Your task to perform on an android device: change notification settings in the gmail app Image 0: 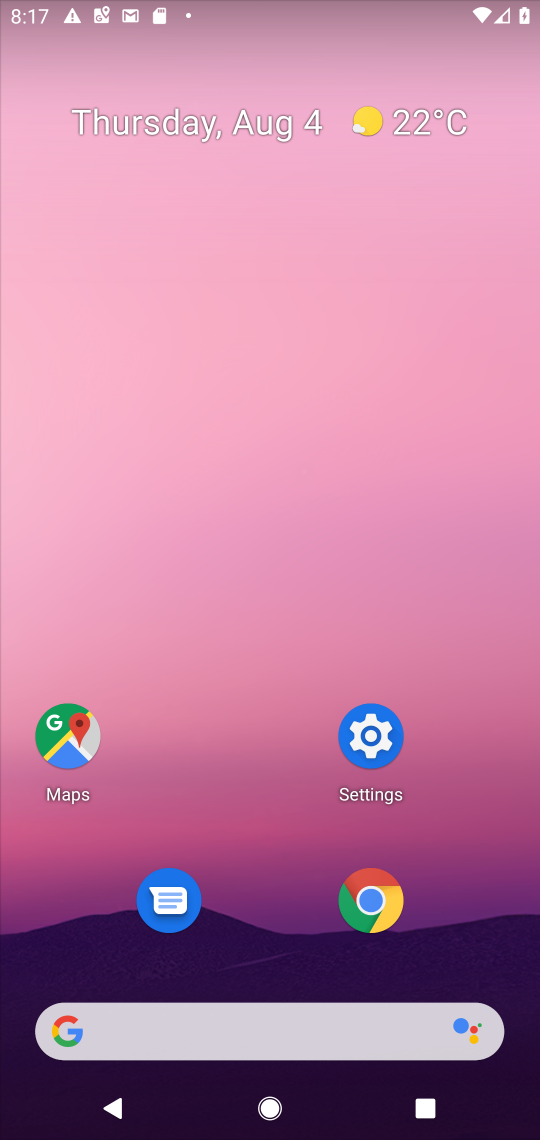
Step 0: press home button
Your task to perform on an android device: change notification settings in the gmail app Image 1: 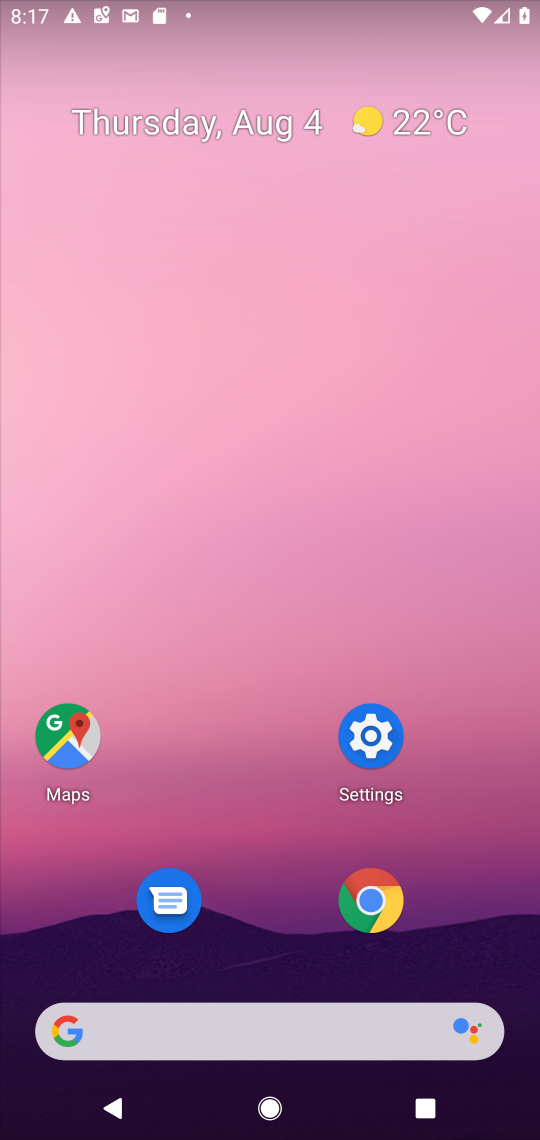
Step 1: drag from (239, 1050) to (386, 306)
Your task to perform on an android device: change notification settings in the gmail app Image 2: 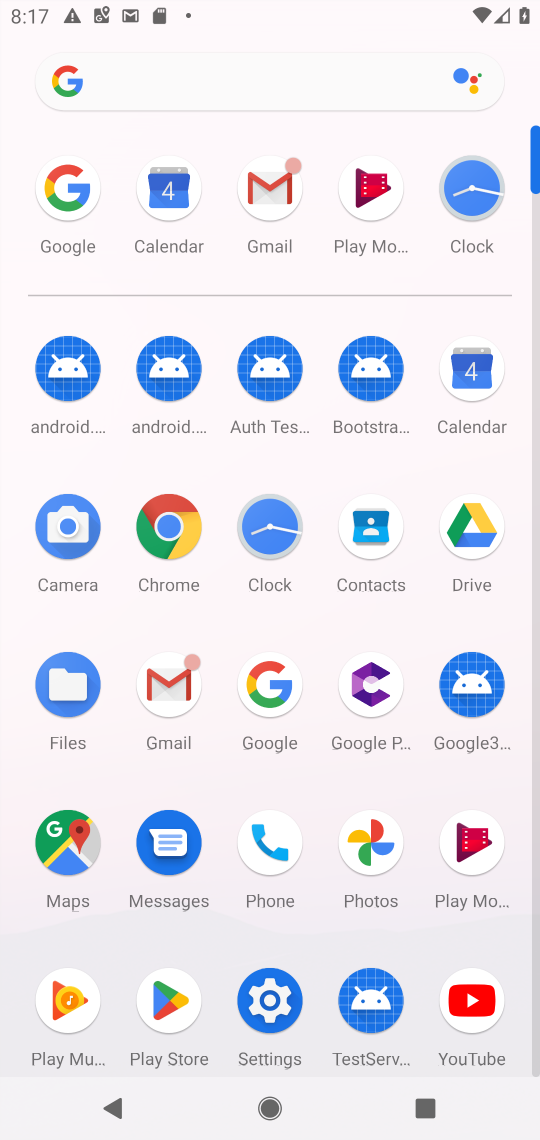
Step 2: click (270, 195)
Your task to perform on an android device: change notification settings in the gmail app Image 3: 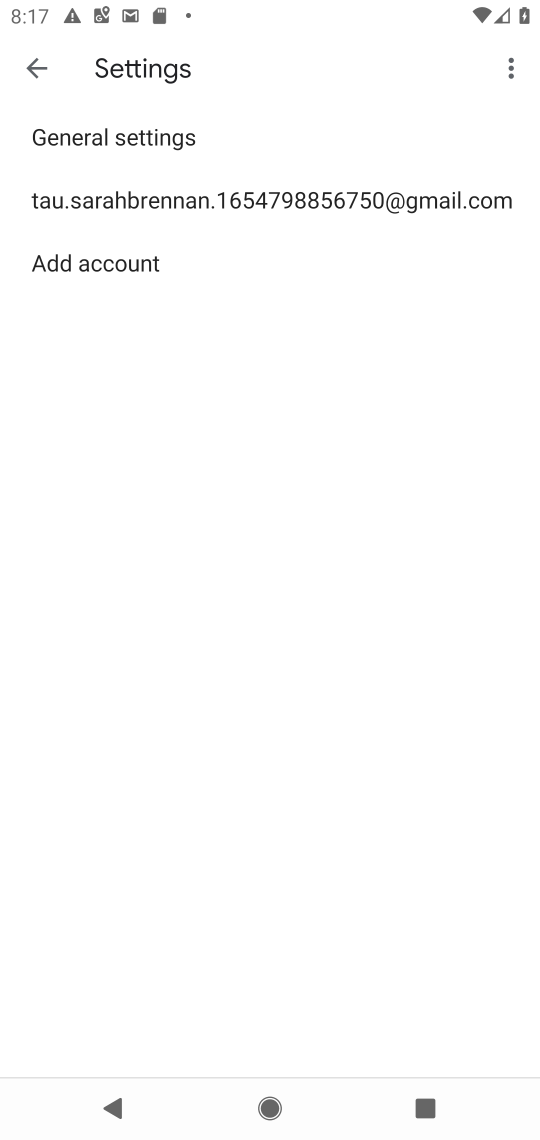
Step 3: click (158, 204)
Your task to perform on an android device: change notification settings in the gmail app Image 4: 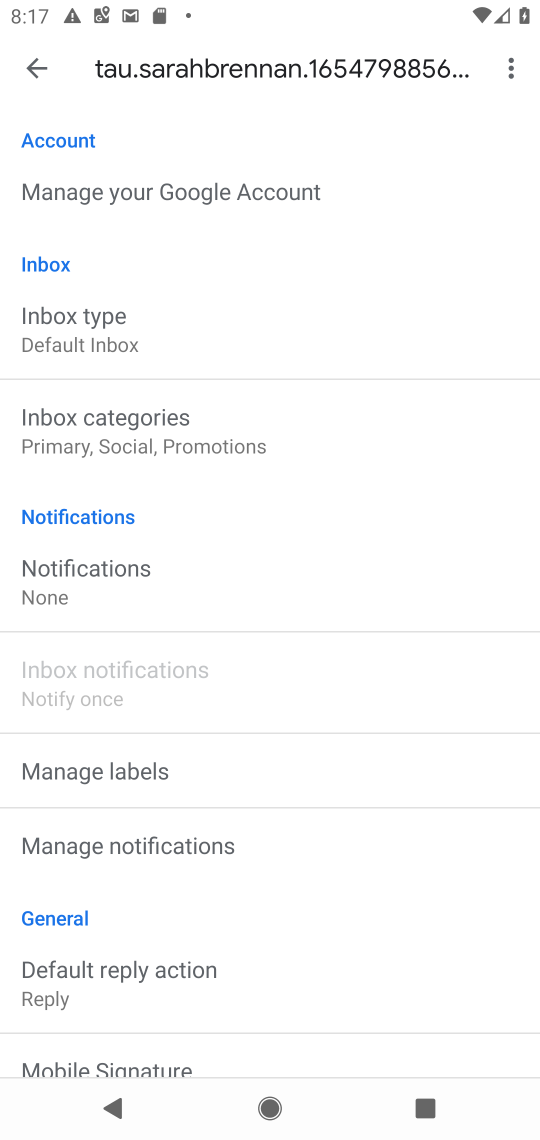
Step 4: click (71, 575)
Your task to perform on an android device: change notification settings in the gmail app Image 5: 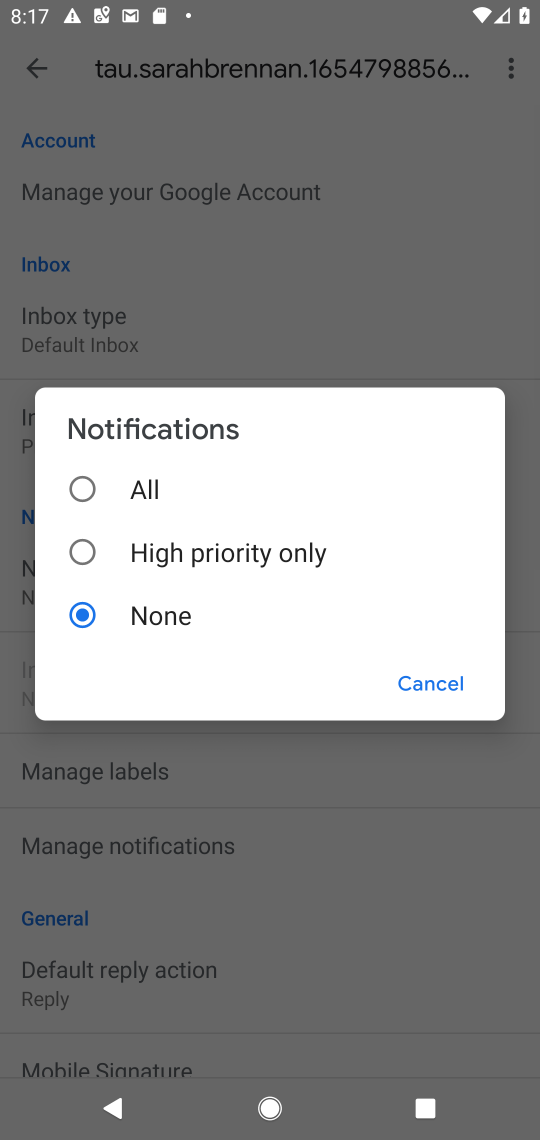
Step 5: click (77, 484)
Your task to perform on an android device: change notification settings in the gmail app Image 6: 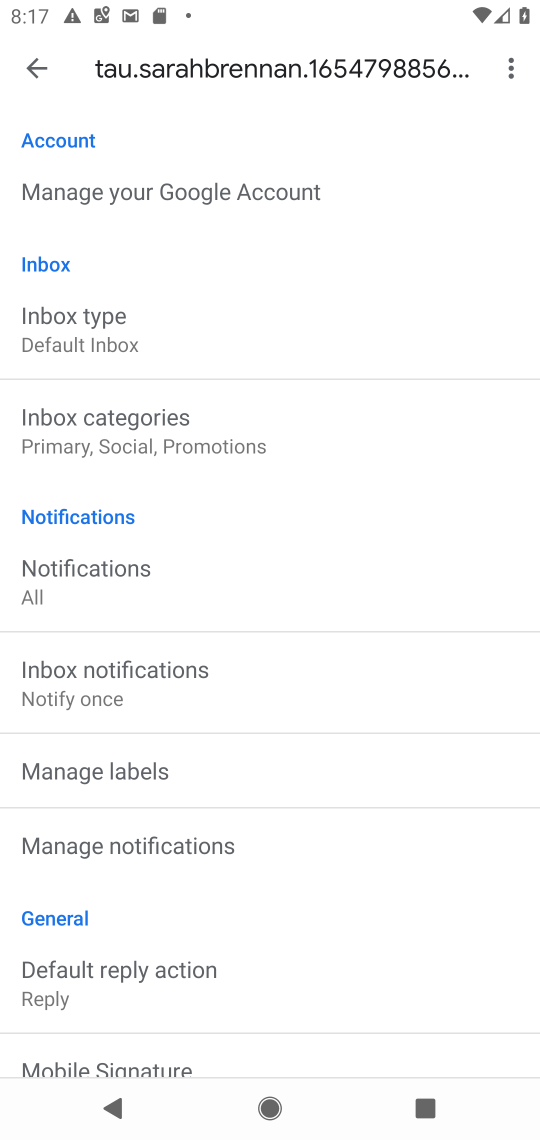
Step 6: task complete